Your task to perform on an android device: Open Chrome and go to settings Image 0: 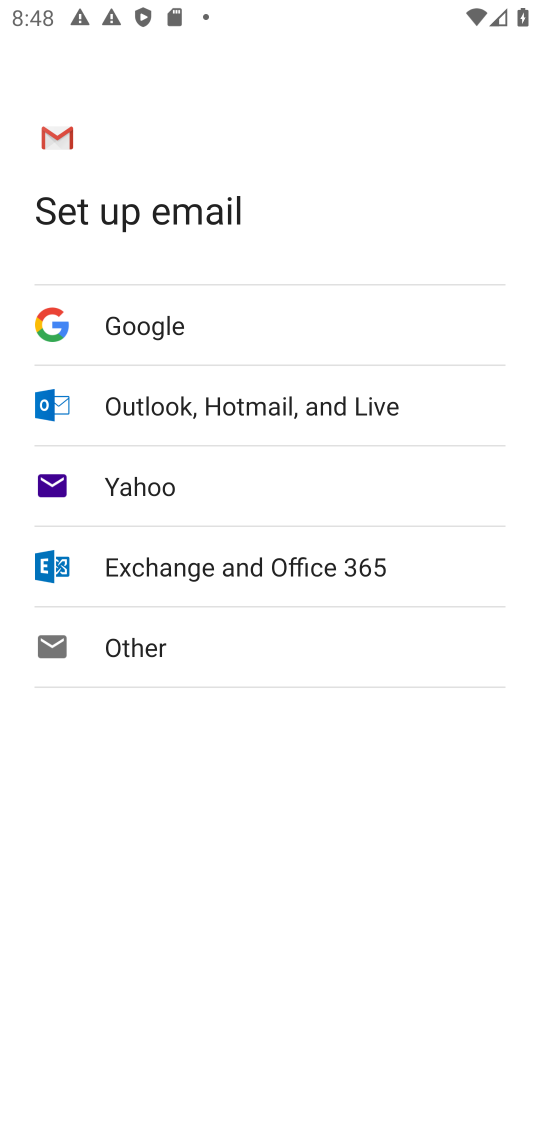
Step 0: press home button
Your task to perform on an android device: Open Chrome and go to settings Image 1: 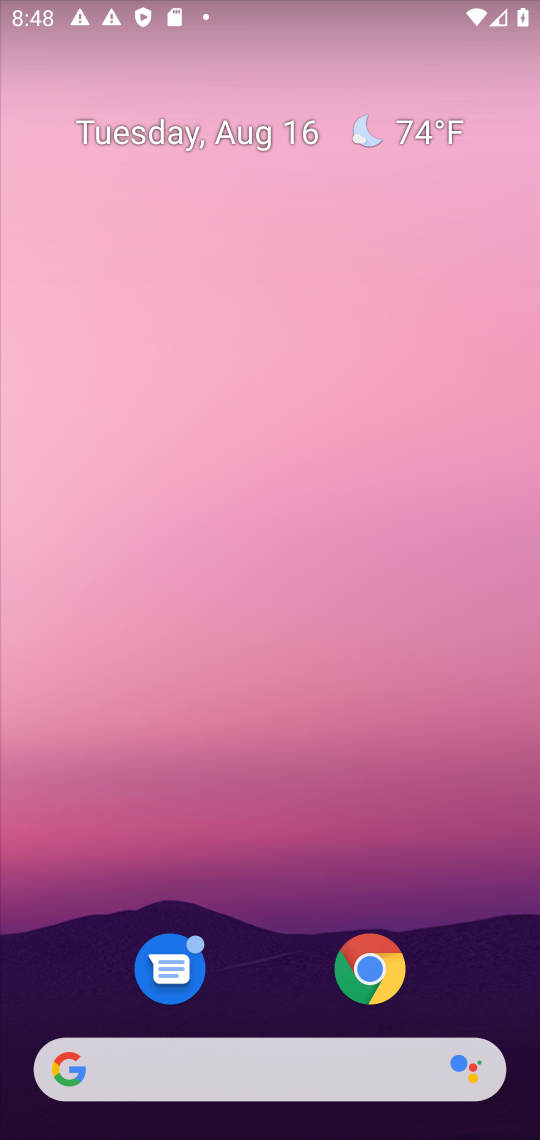
Step 1: click (357, 949)
Your task to perform on an android device: Open Chrome and go to settings Image 2: 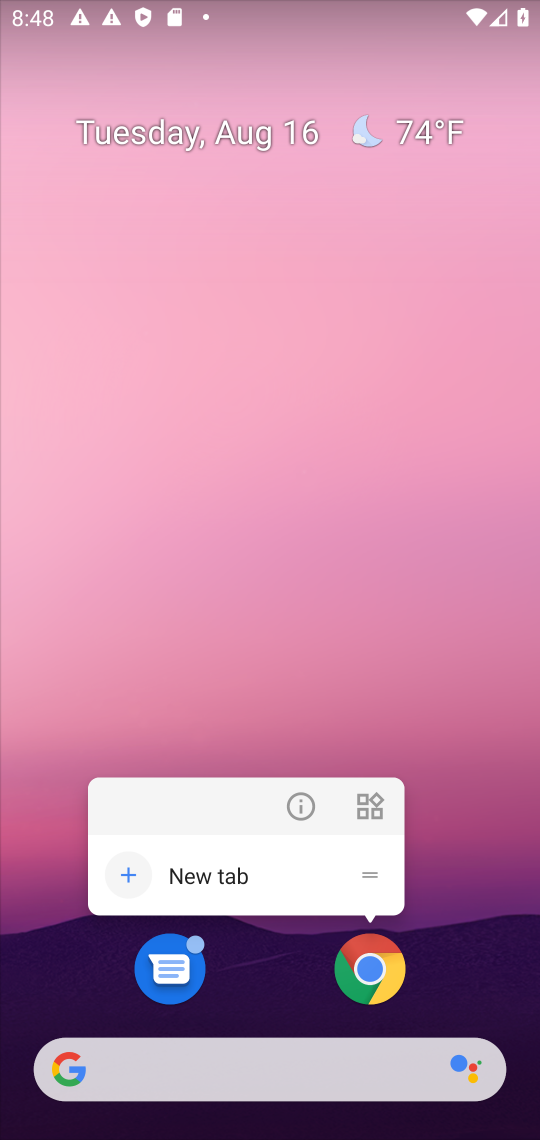
Step 2: click (401, 983)
Your task to perform on an android device: Open Chrome and go to settings Image 3: 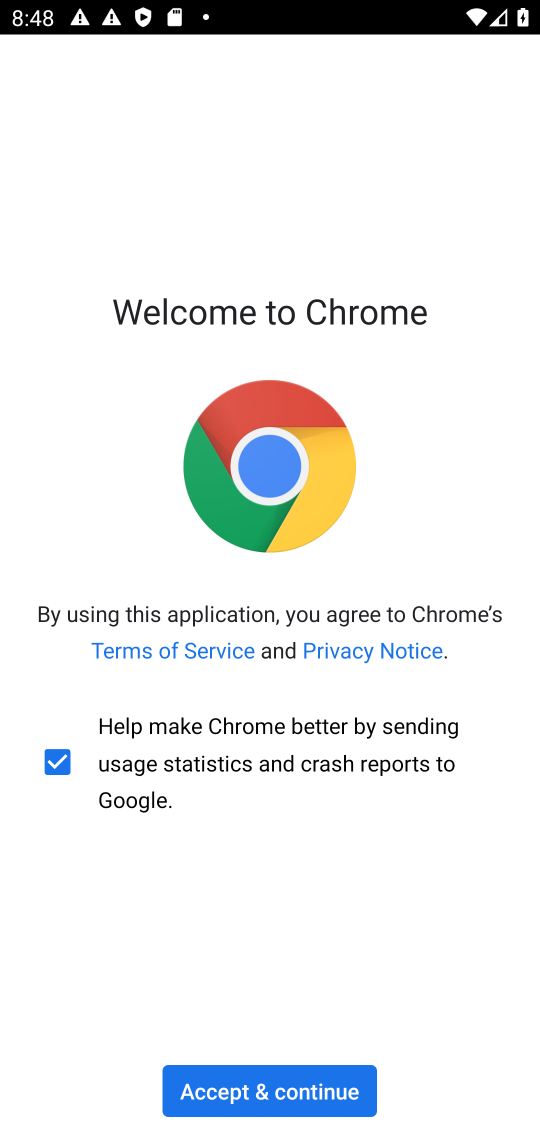
Step 3: click (300, 1065)
Your task to perform on an android device: Open Chrome and go to settings Image 4: 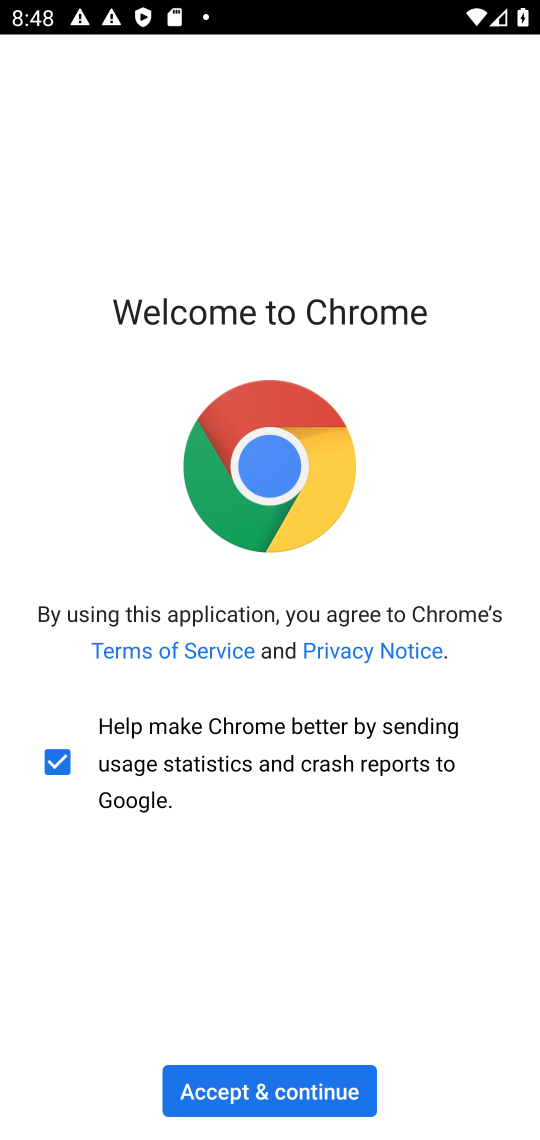
Step 4: click (300, 1065)
Your task to perform on an android device: Open Chrome and go to settings Image 5: 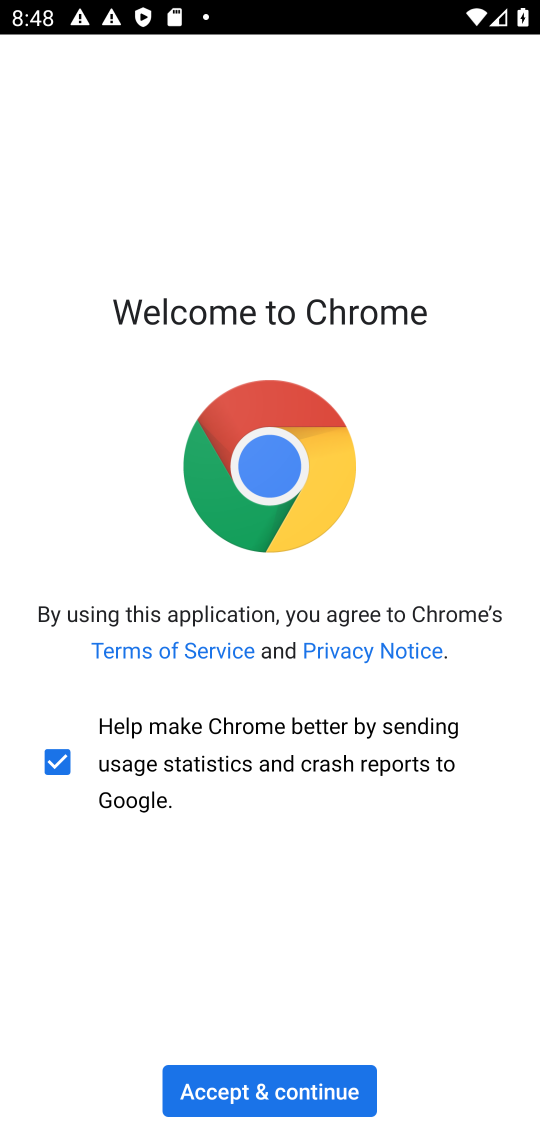
Step 5: click (300, 1065)
Your task to perform on an android device: Open Chrome and go to settings Image 6: 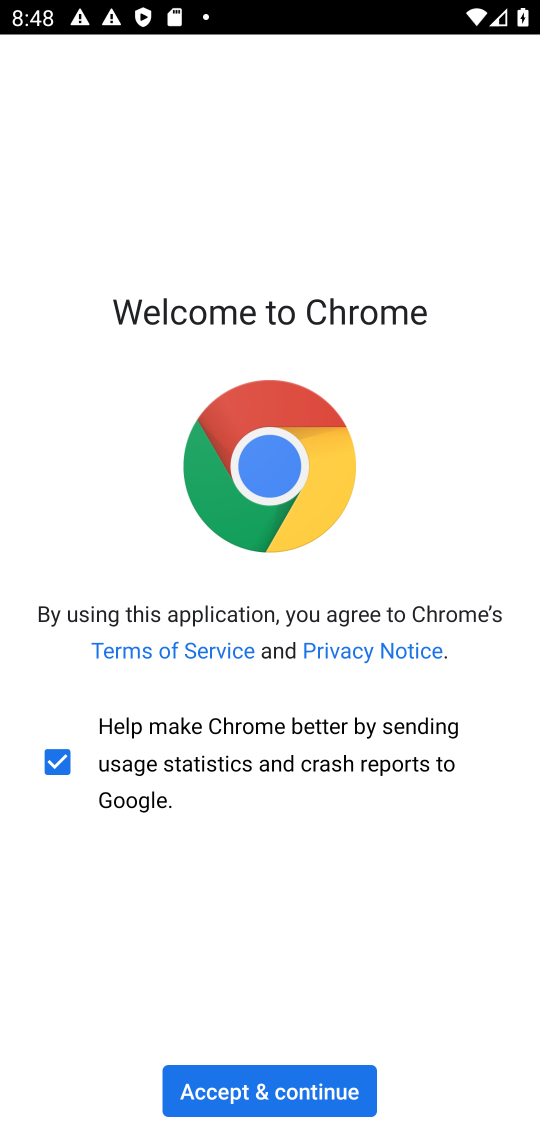
Step 6: click (227, 1105)
Your task to perform on an android device: Open Chrome and go to settings Image 7: 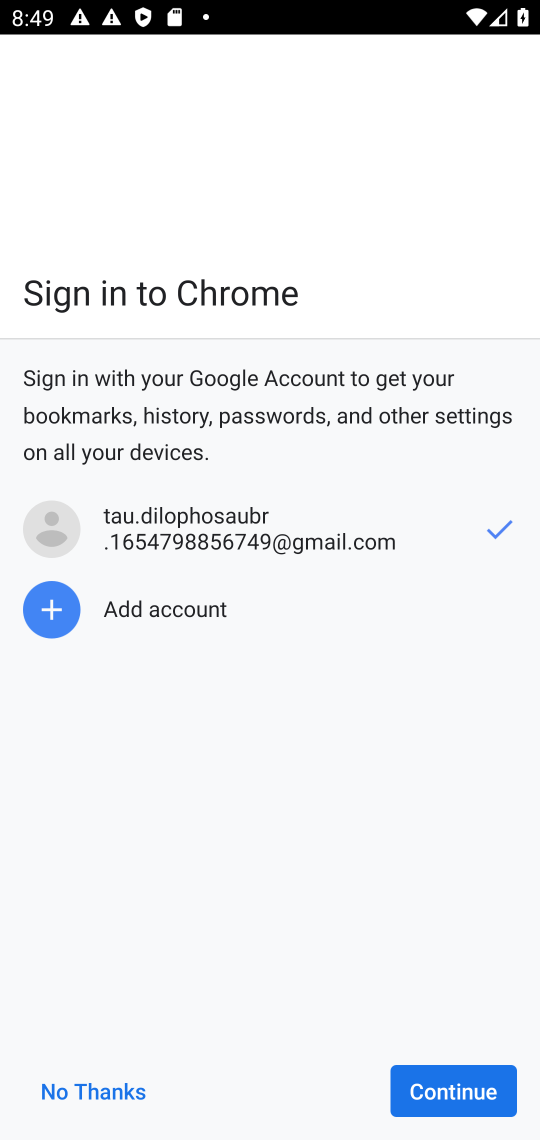
Step 7: click (409, 1063)
Your task to perform on an android device: Open Chrome and go to settings Image 8: 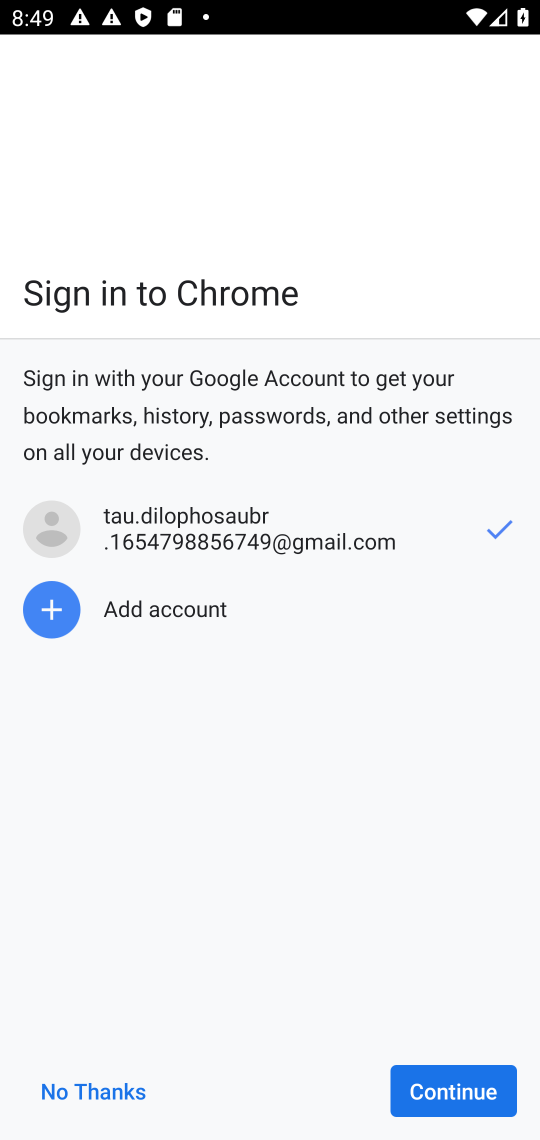
Step 8: click (493, 1081)
Your task to perform on an android device: Open Chrome and go to settings Image 9: 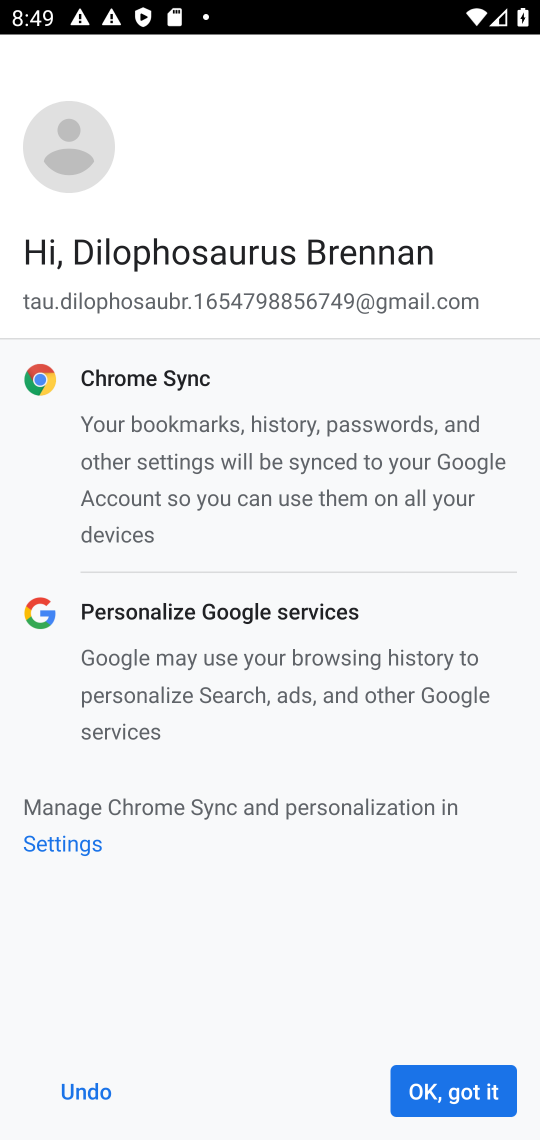
Step 9: click (493, 1081)
Your task to perform on an android device: Open Chrome and go to settings Image 10: 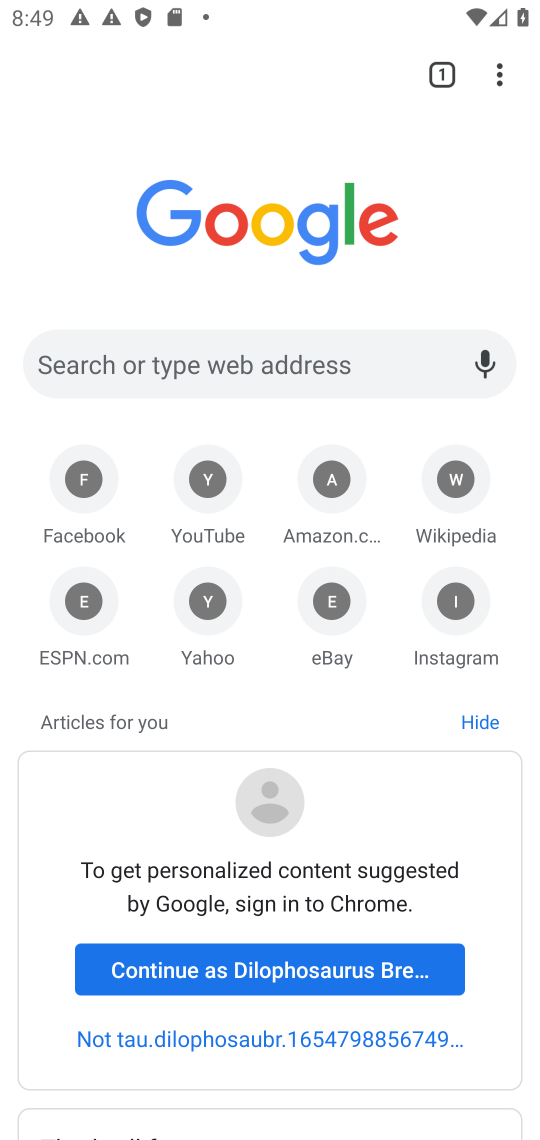
Step 10: click (497, 81)
Your task to perform on an android device: Open Chrome and go to settings Image 11: 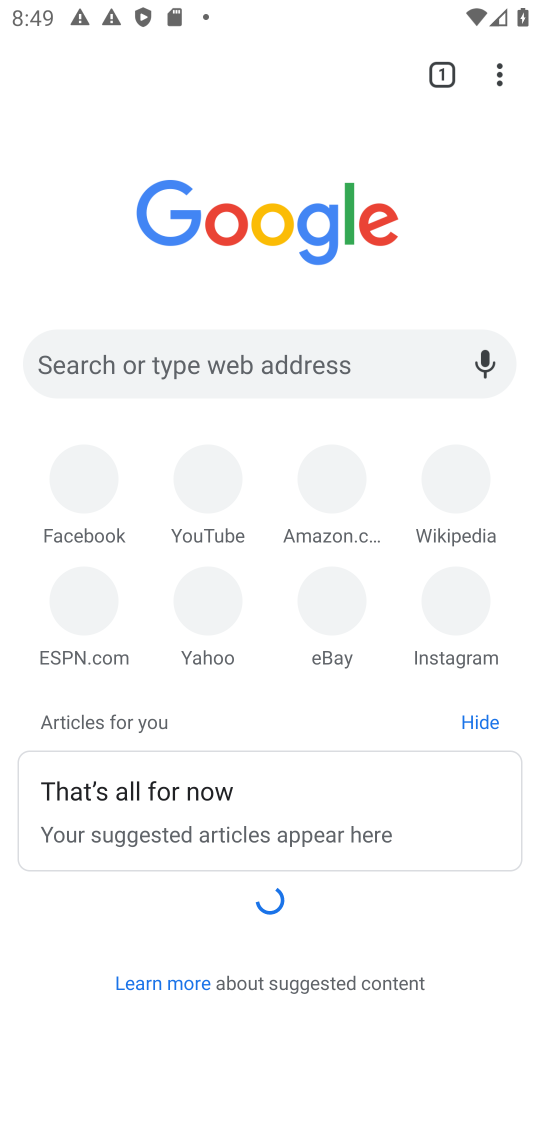
Step 11: click (494, 80)
Your task to perform on an android device: Open Chrome and go to settings Image 12: 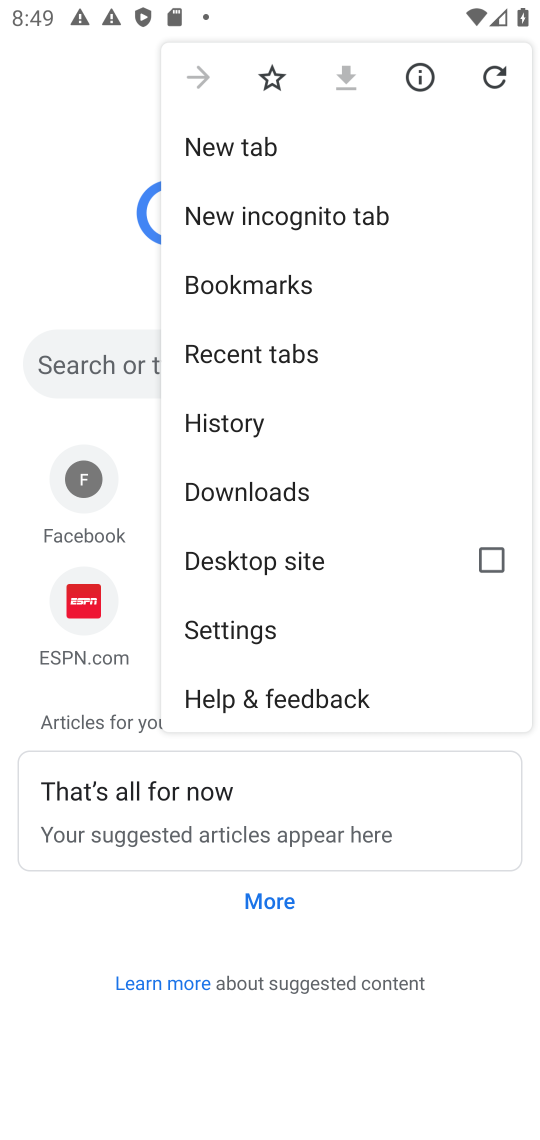
Step 12: click (250, 615)
Your task to perform on an android device: Open Chrome and go to settings Image 13: 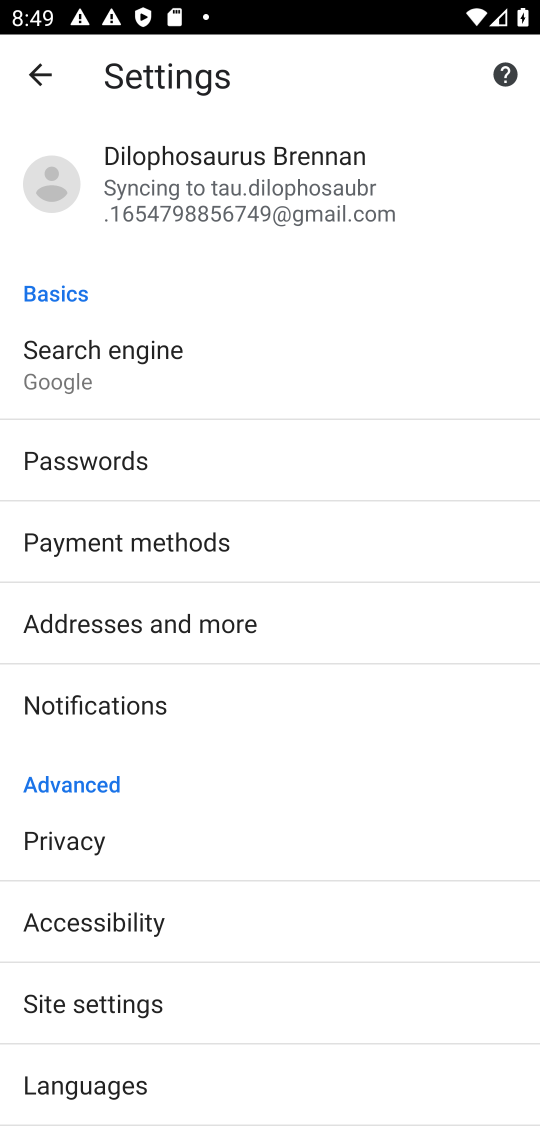
Step 13: task complete